Your task to perform on an android device: Check the news Image 0: 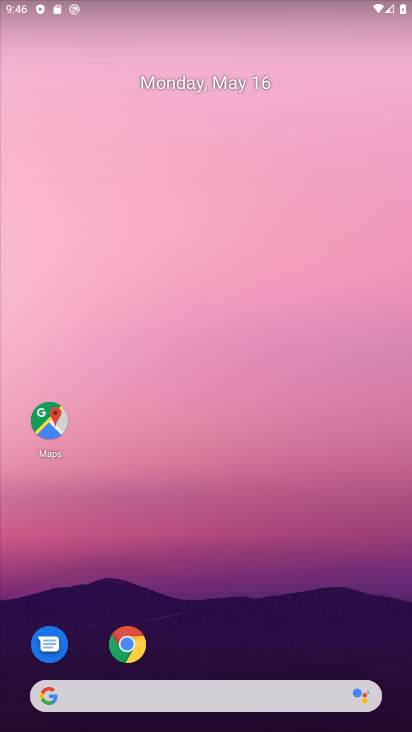
Step 0: click (139, 698)
Your task to perform on an android device: Check the news Image 1: 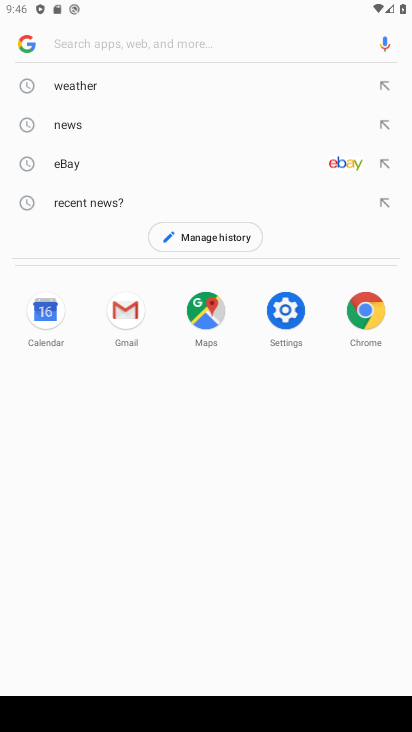
Step 1: click (83, 119)
Your task to perform on an android device: Check the news Image 2: 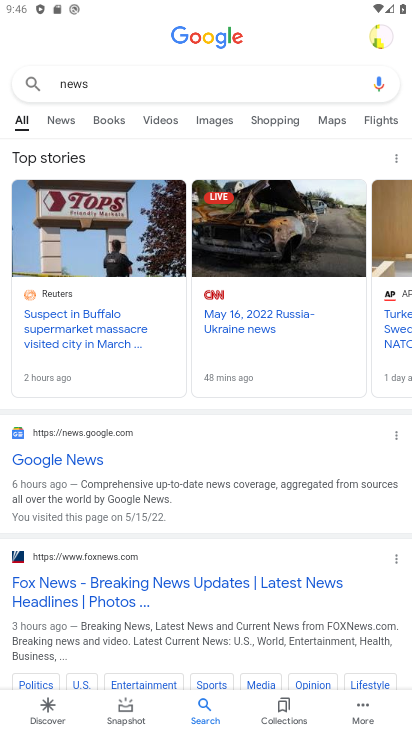
Step 2: task complete